Your task to perform on an android device: open chrome and create a bookmark for the current page Image 0: 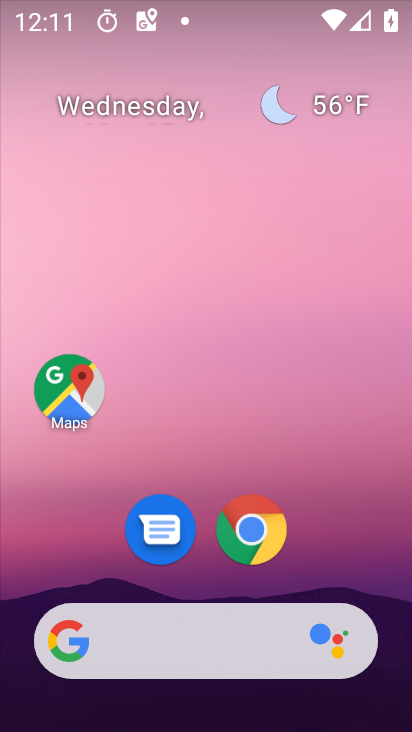
Step 0: click (265, 520)
Your task to perform on an android device: open chrome and create a bookmark for the current page Image 1: 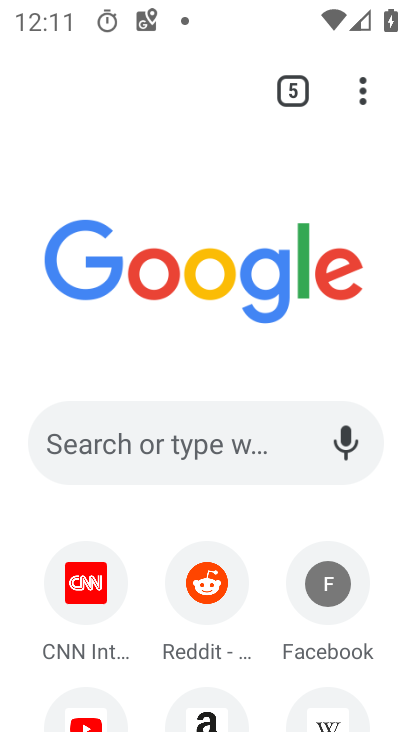
Step 1: click (373, 105)
Your task to perform on an android device: open chrome and create a bookmark for the current page Image 2: 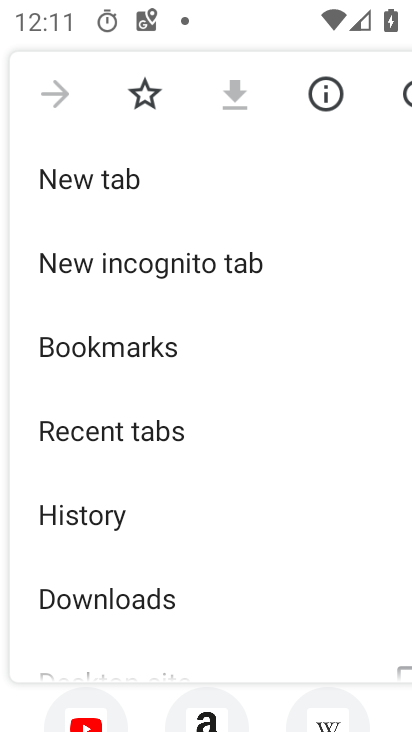
Step 2: click (146, 98)
Your task to perform on an android device: open chrome and create a bookmark for the current page Image 3: 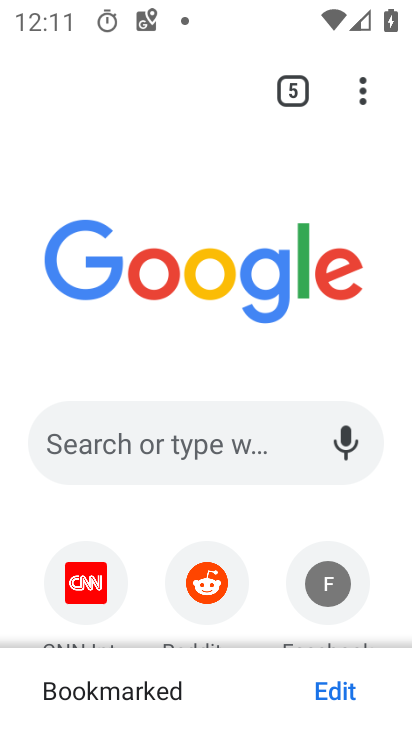
Step 3: task complete